Your task to perform on an android device: turn off priority inbox in the gmail app Image 0: 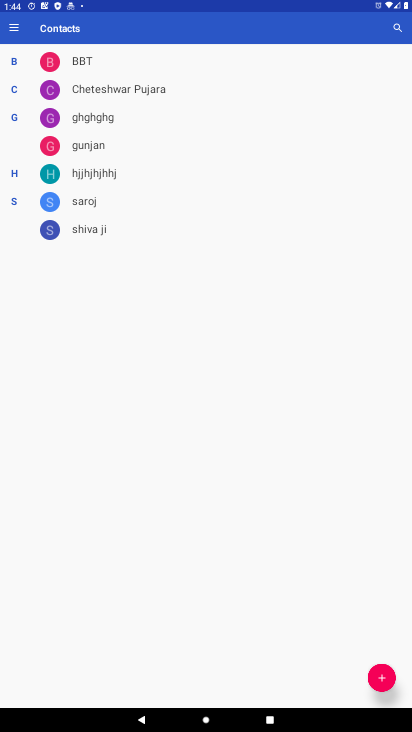
Step 0: press home button
Your task to perform on an android device: turn off priority inbox in the gmail app Image 1: 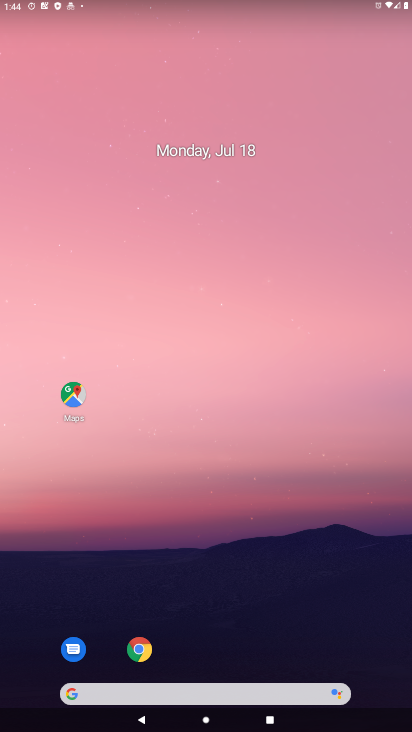
Step 1: drag from (217, 667) to (265, 158)
Your task to perform on an android device: turn off priority inbox in the gmail app Image 2: 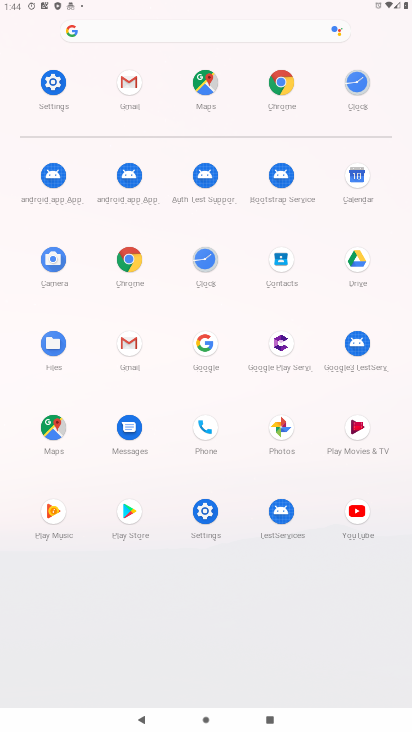
Step 2: click (132, 339)
Your task to perform on an android device: turn off priority inbox in the gmail app Image 3: 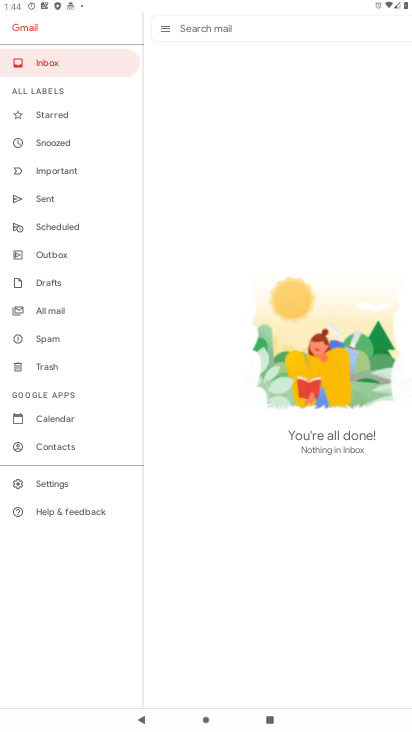
Step 3: click (41, 486)
Your task to perform on an android device: turn off priority inbox in the gmail app Image 4: 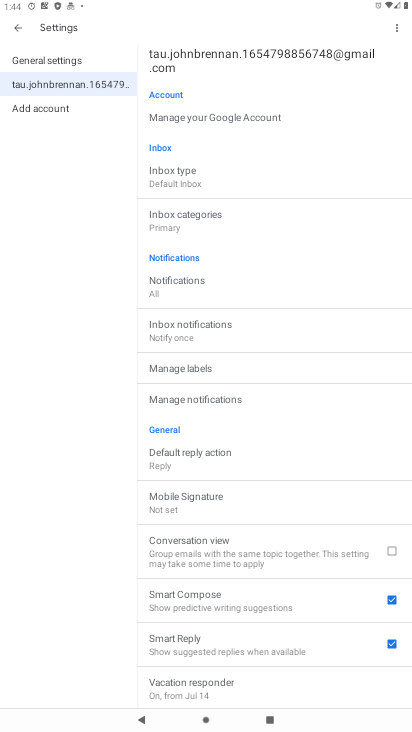
Step 4: click (196, 181)
Your task to perform on an android device: turn off priority inbox in the gmail app Image 5: 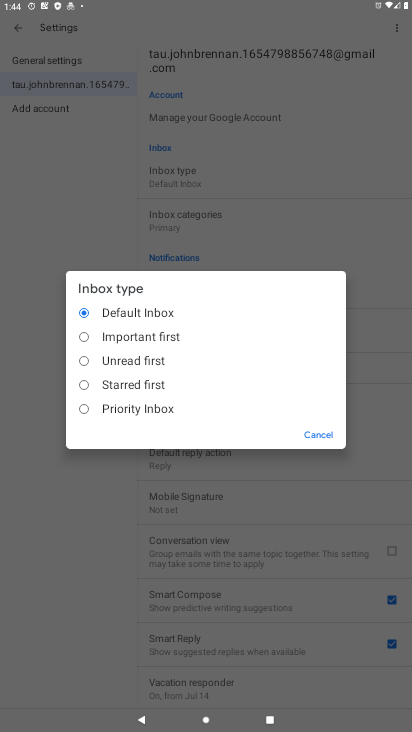
Step 5: task complete